Your task to perform on an android device: check android version Image 0: 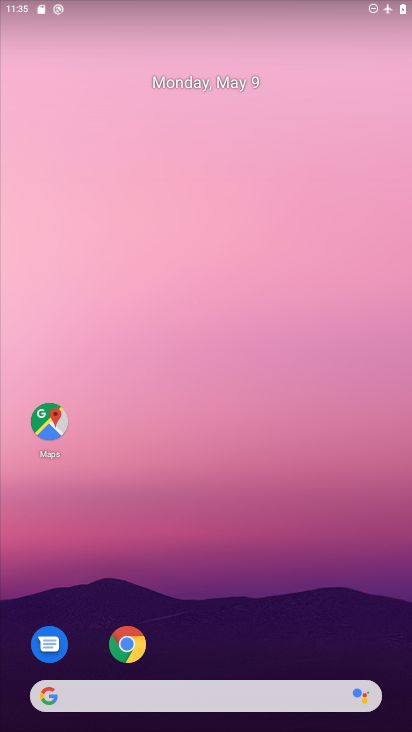
Step 0: drag from (214, 585) to (216, 183)
Your task to perform on an android device: check android version Image 1: 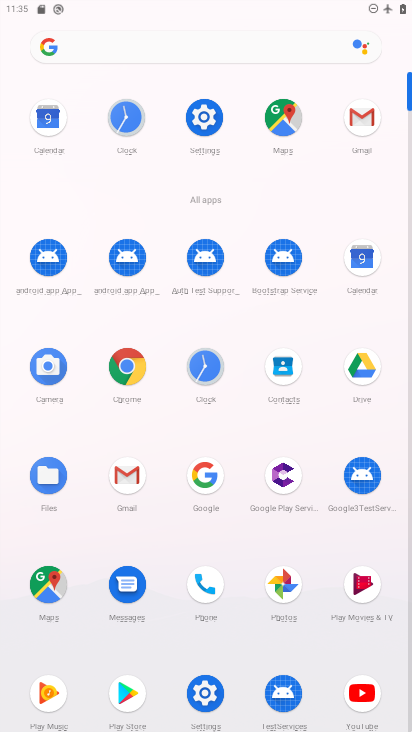
Step 1: click (204, 139)
Your task to perform on an android device: check android version Image 2: 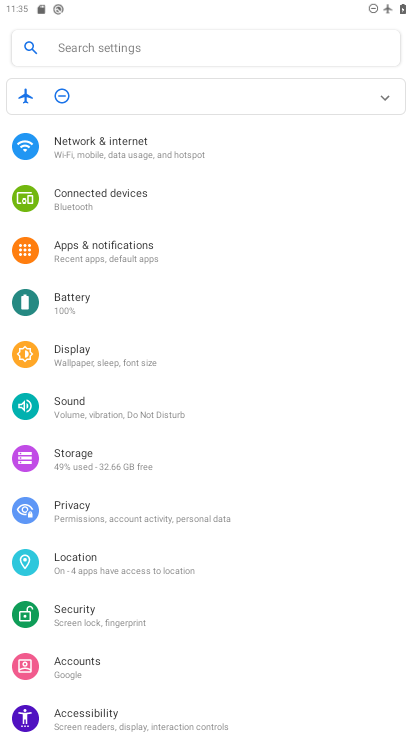
Step 2: drag from (204, 645) to (197, 180)
Your task to perform on an android device: check android version Image 3: 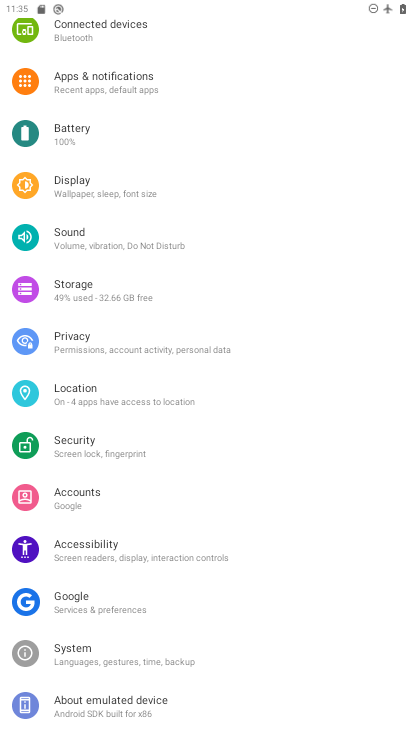
Step 3: drag from (173, 596) to (173, 196)
Your task to perform on an android device: check android version Image 4: 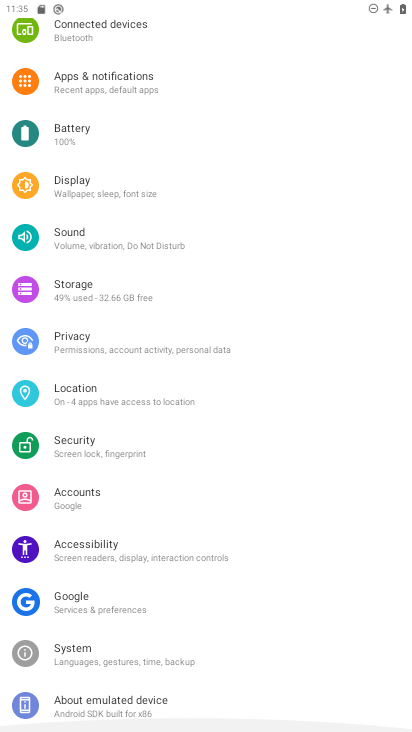
Step 4: click (110, 695)
Your task to perform on an android device: check android version Image 5: 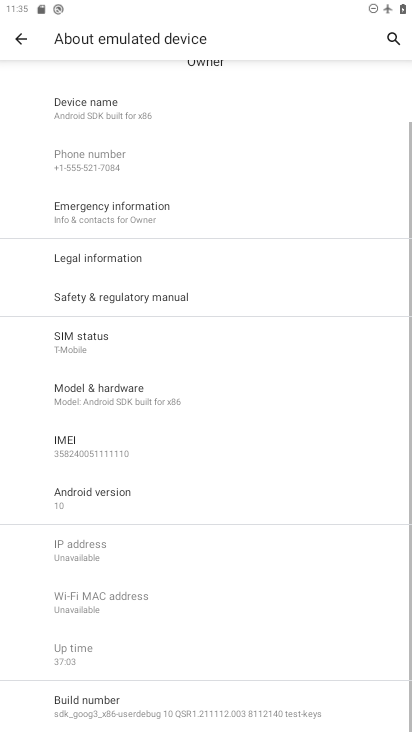
Step 5: drag from (161, 600) to (171, 530)
Your task to perform on an android device: check android version Image 6: 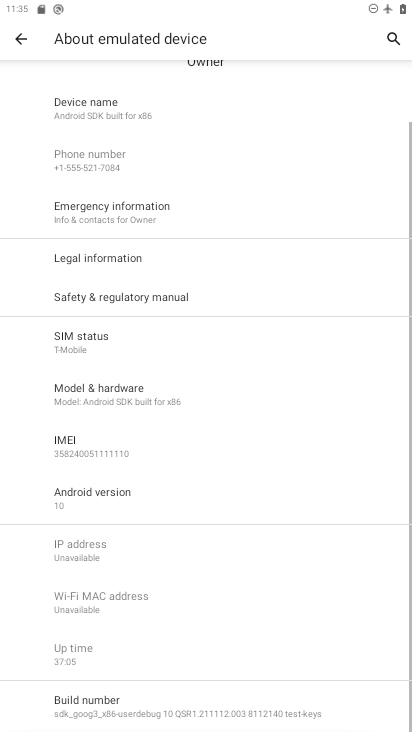
Step 6: click (140, 502)
Your task to perform on an android device: check android version Image 7: 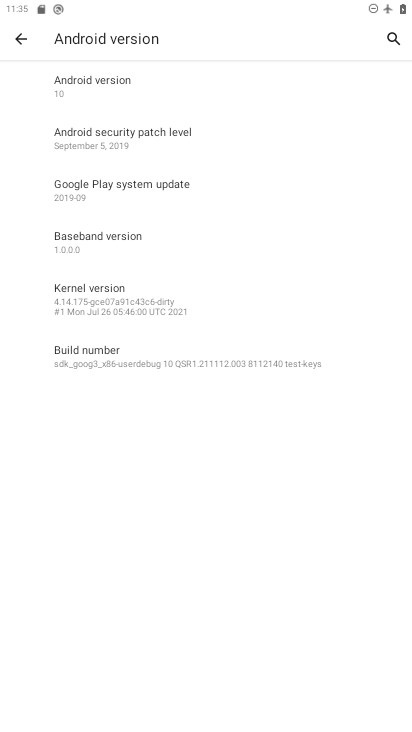
Step 7: click (115, 102)
Your task to perform on an android device: check android version Image 8: 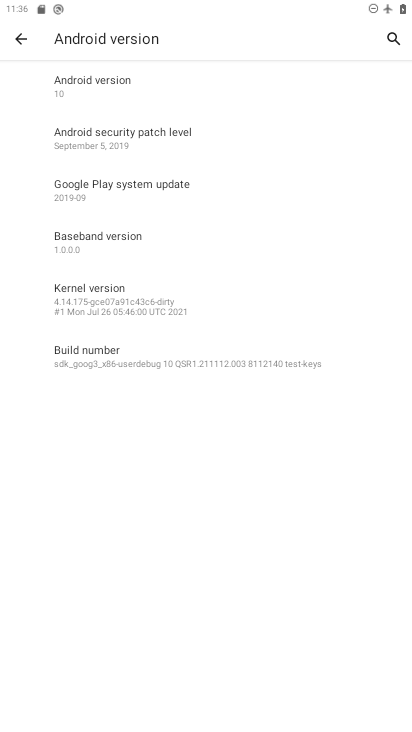
Step 8: task complete